Your task to perform on an android device: Go to network settings Image 0: 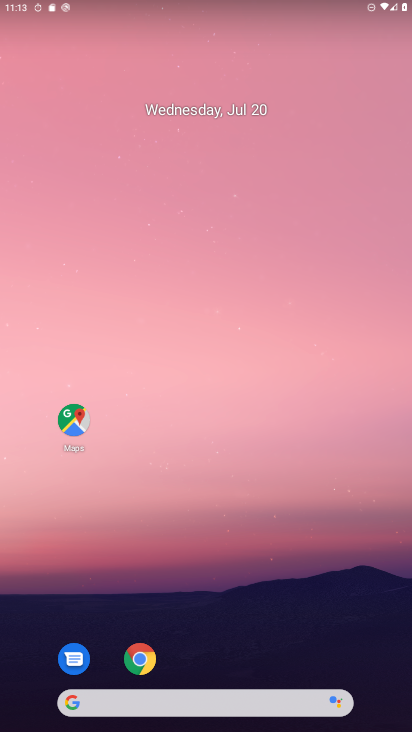
Step 0: drag from (296, 582) to (222, 113)
Your task to perform on an android device: Go to network settings Image 1: 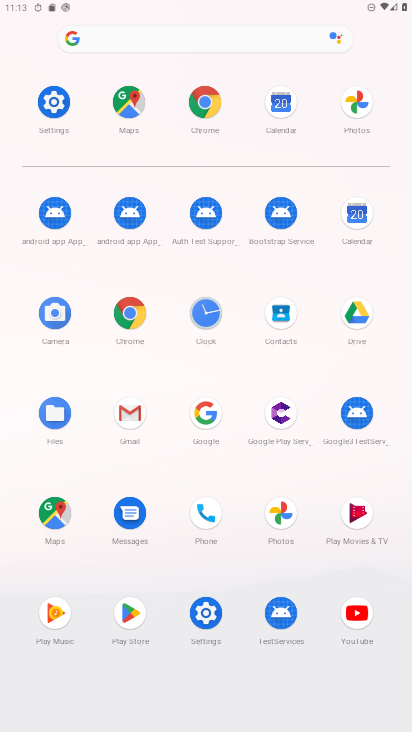
Step 1: click (45, 108)
Your task to perform on an android device: Go to network settings Image 2: 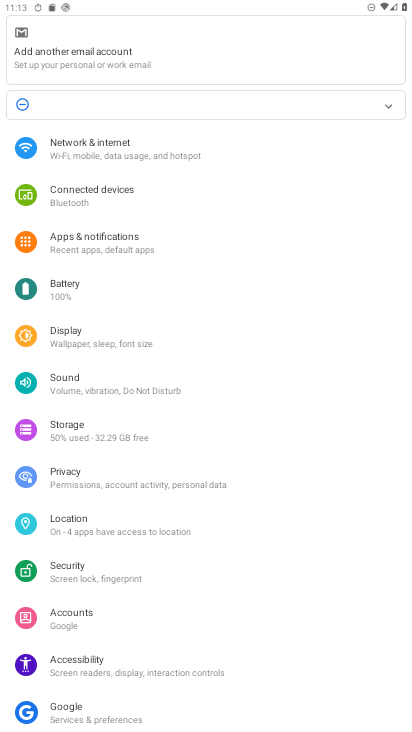
Step 2: click (98, 154)
Your task to perform on an android device: Go to network settings Image 3: 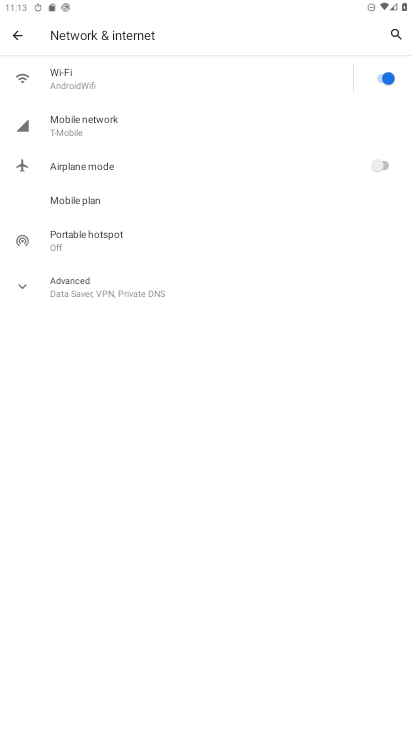
Step 3: task complete